Your task to perform on an android device: Search for sushi restaurants on Maps Image 0: 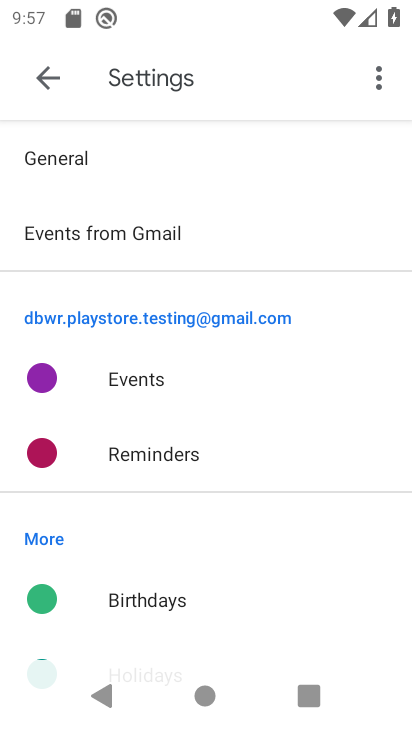
Step 0: press back button
Your task to perform on an android device: Search for sushi restaurants on Maps Image 1: 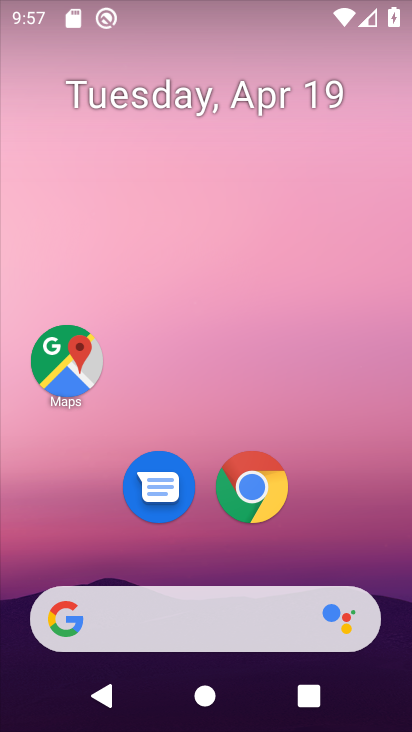
Step 1: drag from (337, 305) to (216, 0)
Your task to perform on an android device: Search for sushi restaurants on Maps Image 2: 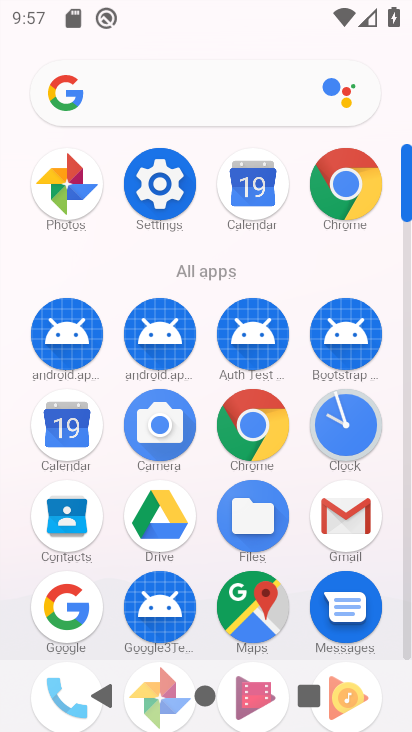
Step 2: drag from (15, 487) to (8, 194)
Your task to perform on an android device: Search for sushi restaurants on Maps Image 3: 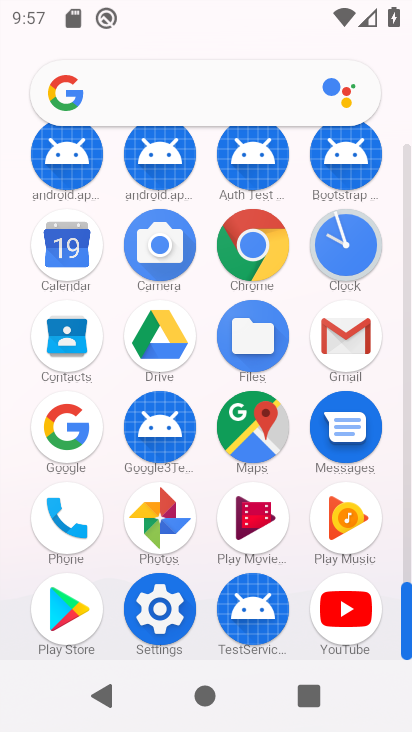
Step 3: drag from (8, 194) to (12, 423)
Your task to perform on an android device: Search for sushi restaurants on Maps Image 4: 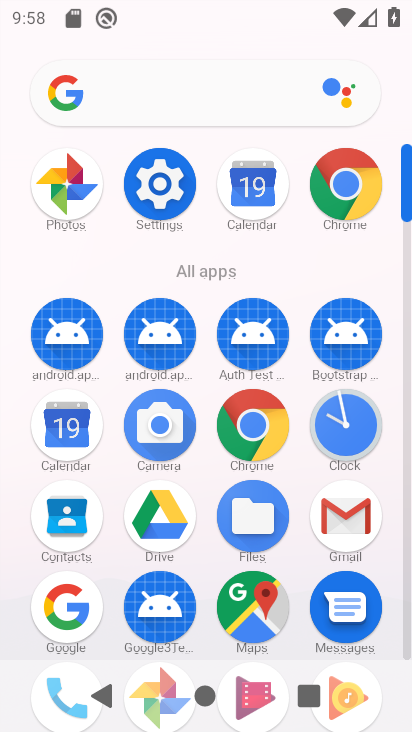
Step 4: drag from (33, 222) to (13, 446)
Your task to perform on an android device: Search for sushi restaurants on Maps Image 5: 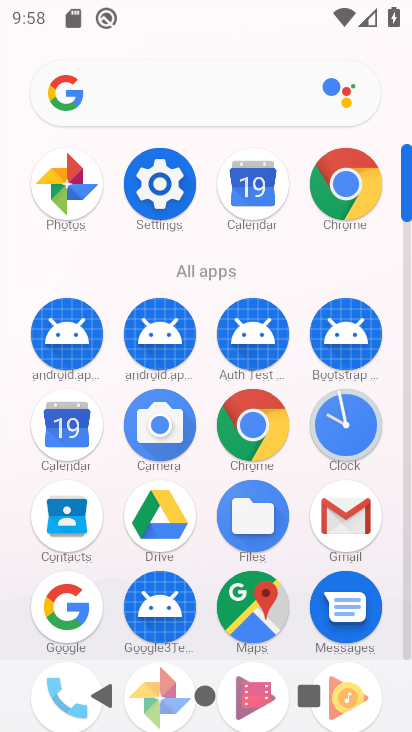
Step 5: click (256, 605)
Your task to perform on an android device: Search for sushi restaurants on Maps Image 6: 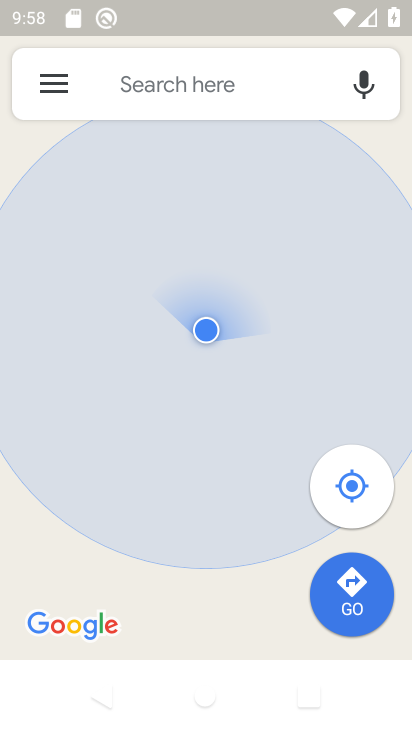
Step 6: click (268, 97)
Your task to perform on an android device: Search for sushi restaurants on Maps Image 7: 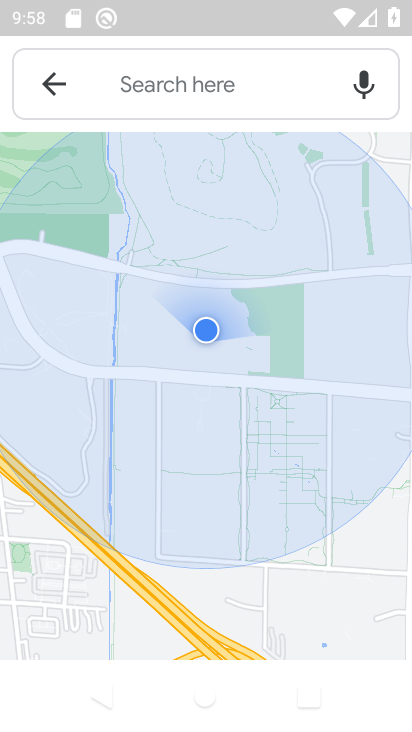
Step 7: click (249, 78)
Your task to perform on an android device: Search for sushi restaurants on Maps Image 8: 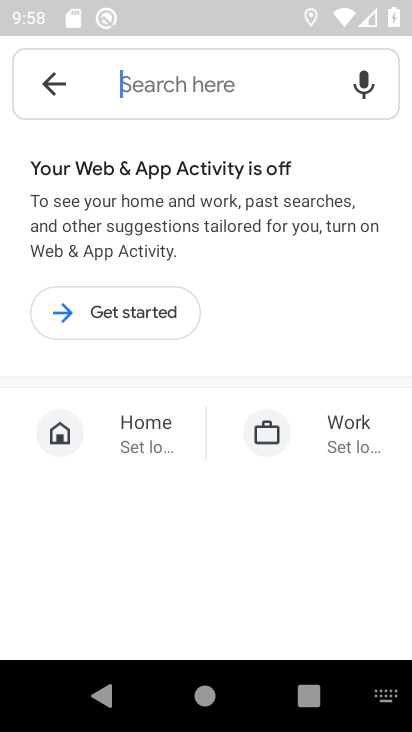
Step 8: click (245, 78)
Your task to perform on an android device: Search for sushi restaurants on Maps Image 9: 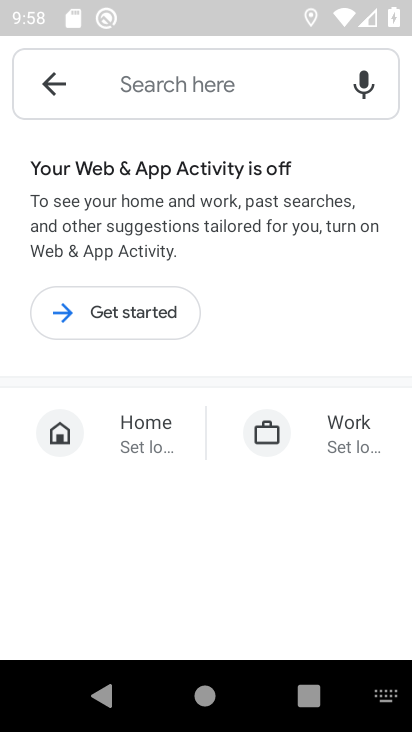
Step 9: click (245, 78)
Your task to perform on an android device: Search for sushi restaurants on Maps Image 10: 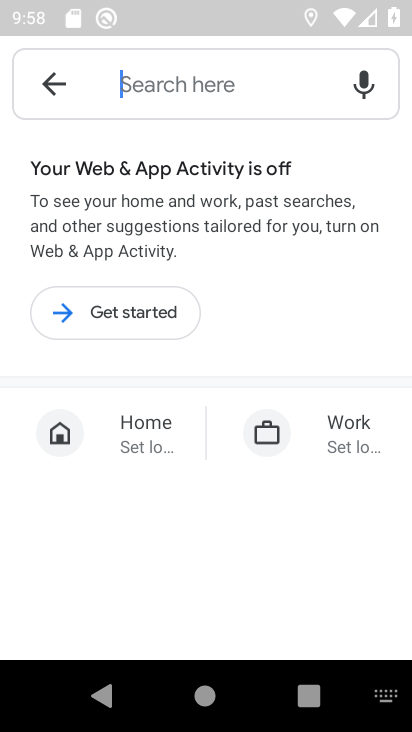
Step 10: type "sushi restaurants"
Your task to perform on an android device: Search for sushi restaurants on Maps Image 11: 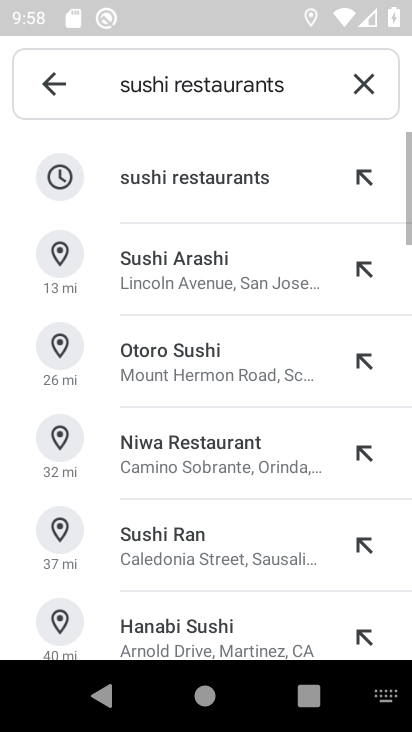
Step 11: click (136, 164)
Your task to perform on an android device: Search for sushi restaurants on Maps Image 12: 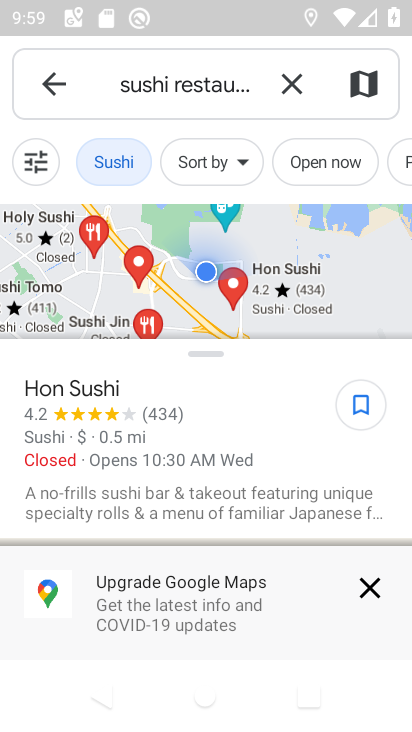
Step 12: click (374, 590)
Your task to perform on an android device: Search for sushi restaurants on Maps Image 13: 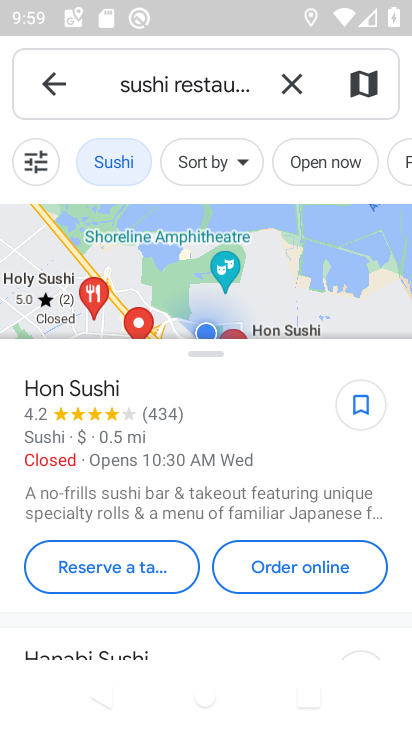
Step 13: task complete